Your task to perform on an android device: turn off picture-in-picture Image 0: 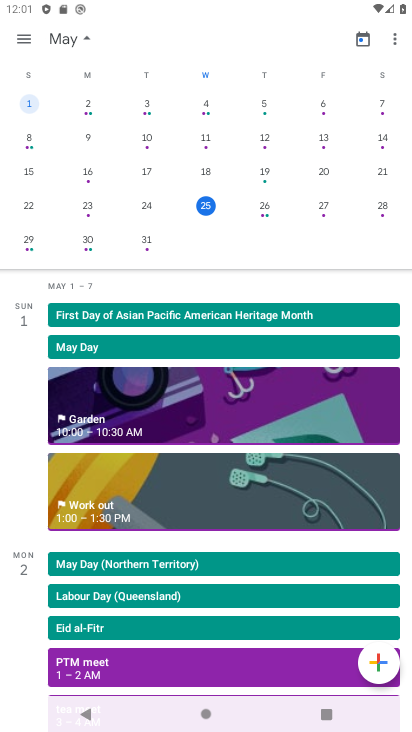
Step 0: press home button
Your task to perform on an android device: turn off picture-in-picture Image 1: 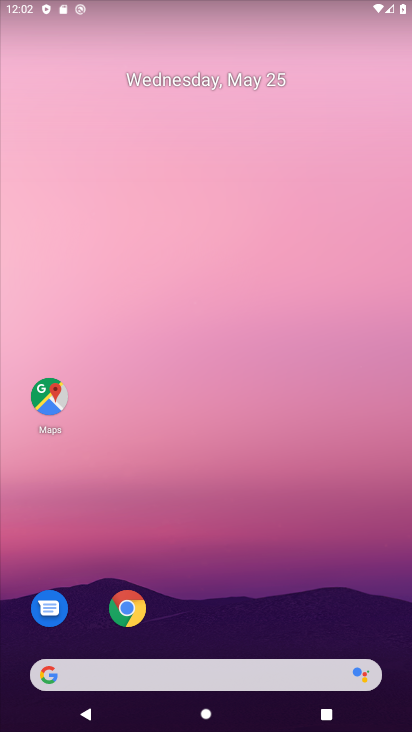
Step 1: drag from (271, 624) to (268, 281)
Your task to perform on an android device: turn off picture-in-picture Image 2: 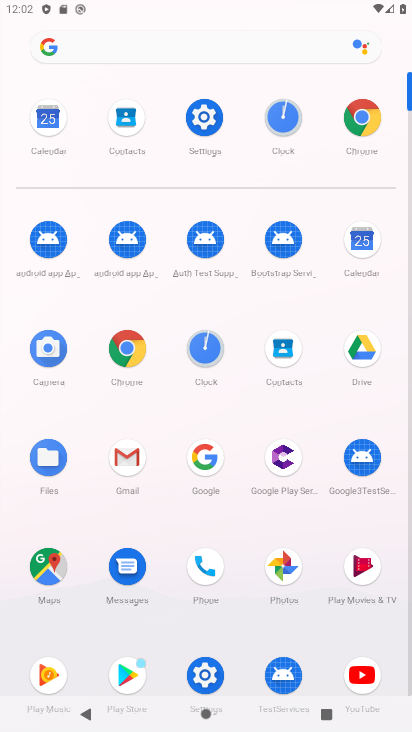
Step 2: click (192, 137)
Your task to perform on an android device: turn off picture-in-picture Image 3: 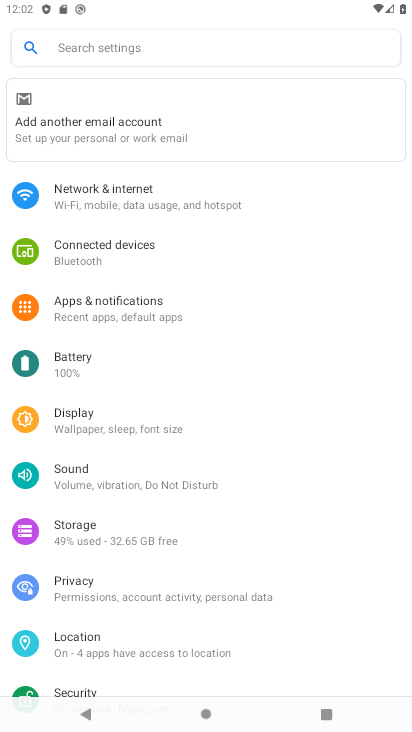
Step 3: drag from (228, 626) to (232, 323)
Your task to perform on an android device: turn off picture-in-picture Image 4: 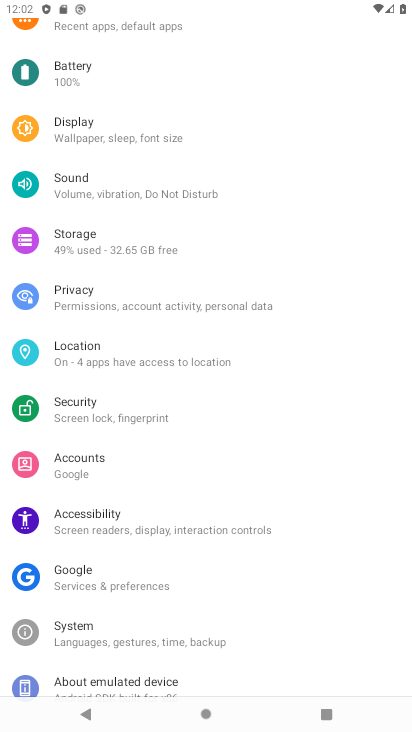
Step 4: click (118, 42)
Your task to perform on an android device: turn off picture-in-picture Image 5: 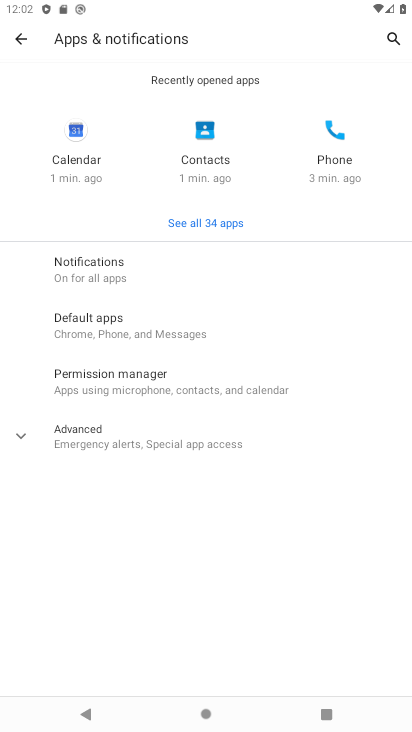
Step 5: click (128, 443)
Your task to perform on an android device: turn off picture-in-picture Image 6: 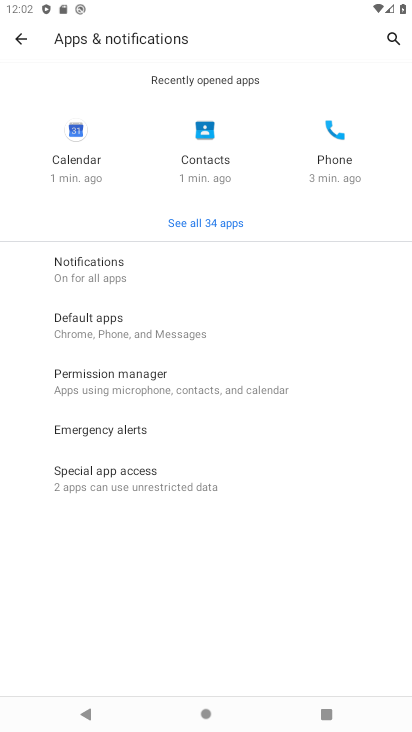
Step 6: click (187, 479)
Your task to perform on an android device: turn off picture-in-picture Image 7: 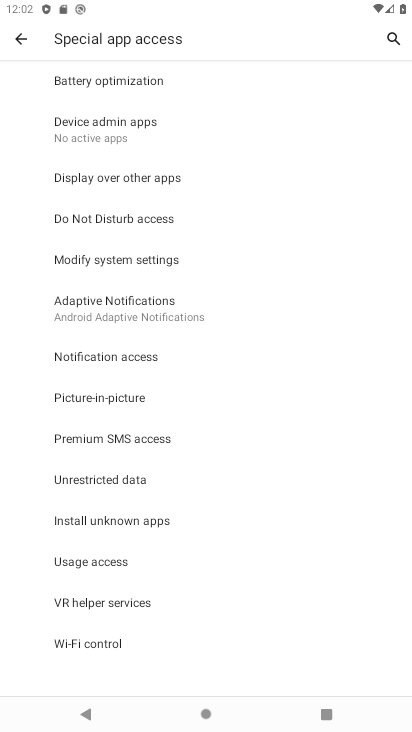
Step 7: click (240, 389)
Your task to perform on an android device: turn off picture-in-picture Image 8: 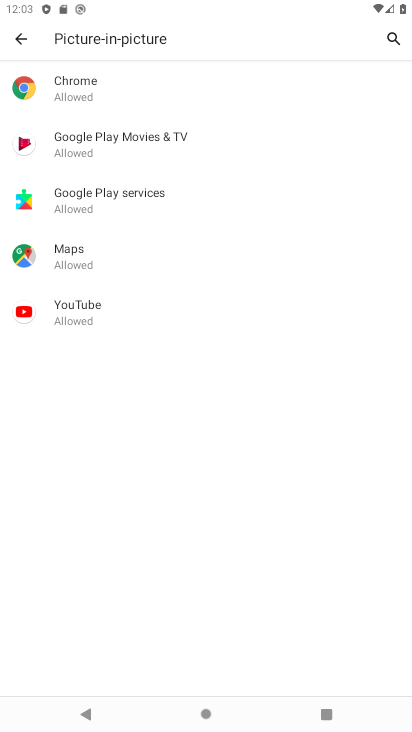
Step 8: click (137, 121)
Your task to perform on an android device: turn off picture-in-picture Image 9: 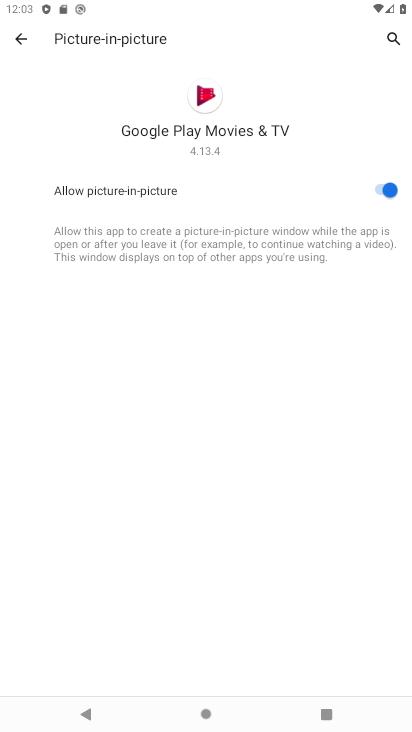
Step 9: click (362, 181)
Your task to perform on an android device: turn off picture-in-picture Image 10: 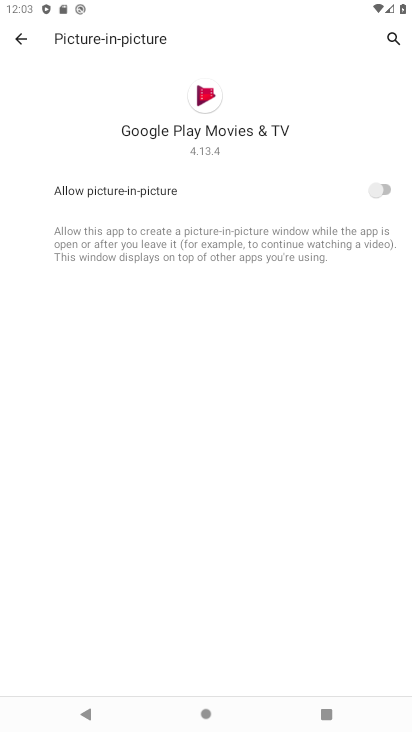
Step 10: task complete